Your task to perform on an android device: Open the calendar app Image 0: 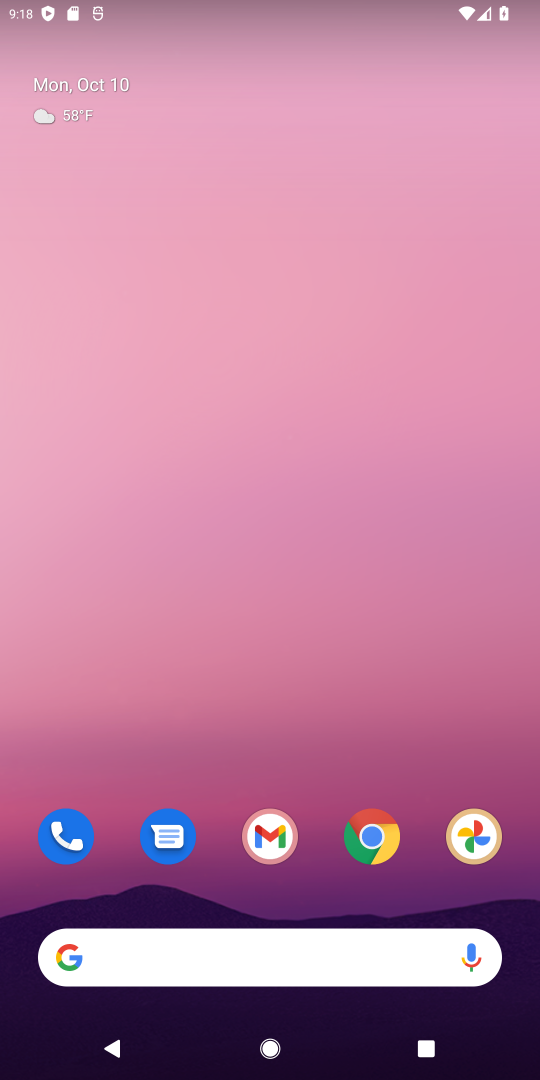
Step 0: drag from (329, 926) to (391, 290)
Your task to perform on an android device: Open the calendar app Image 1: 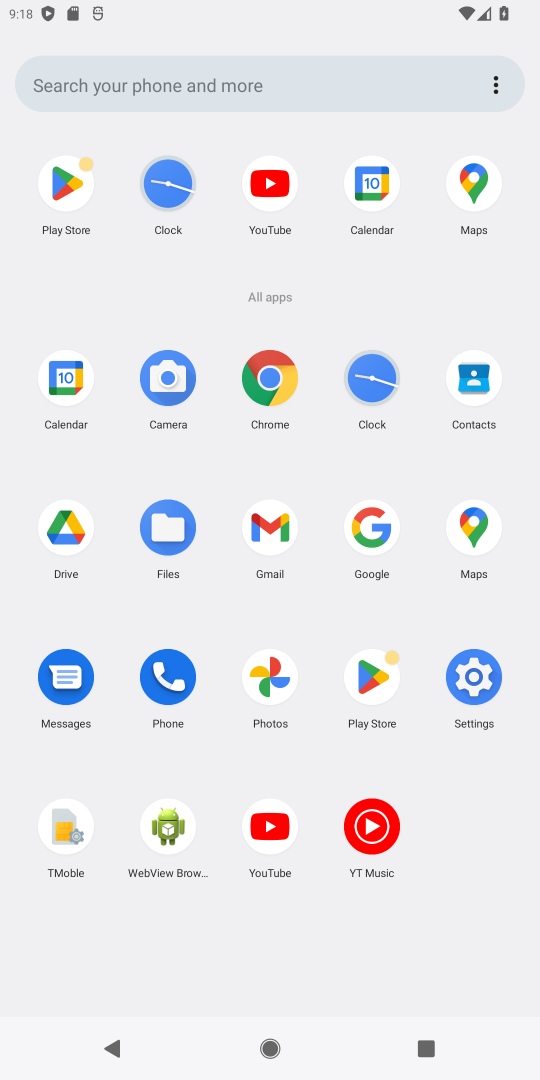
Step 1: click (369, 534)
Your task to perform on an android device: Open the calendar app Image 2: 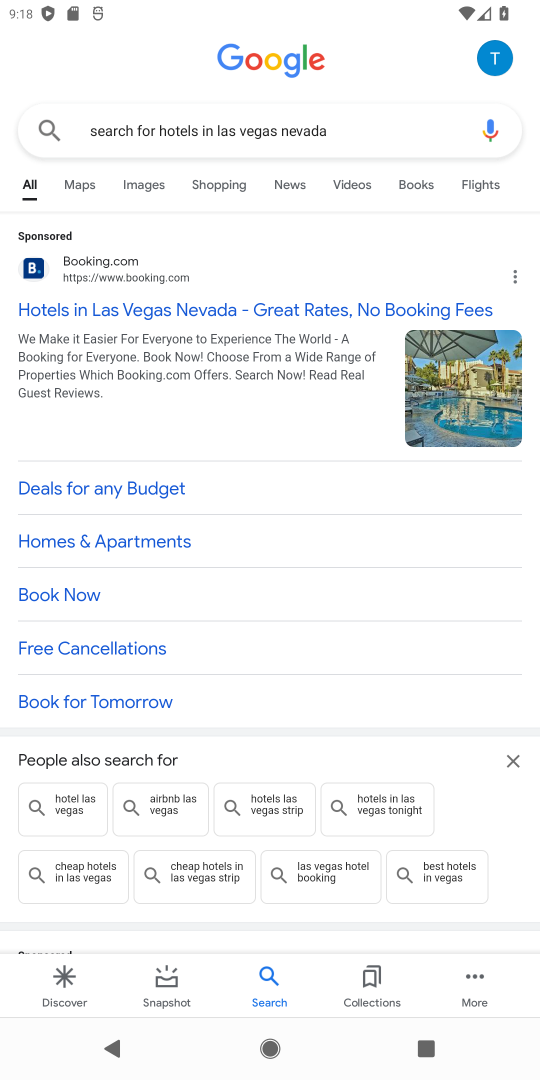
Step 2: click (310, 137)
Your task to perform on an android device: Open the calendar app Image 3: 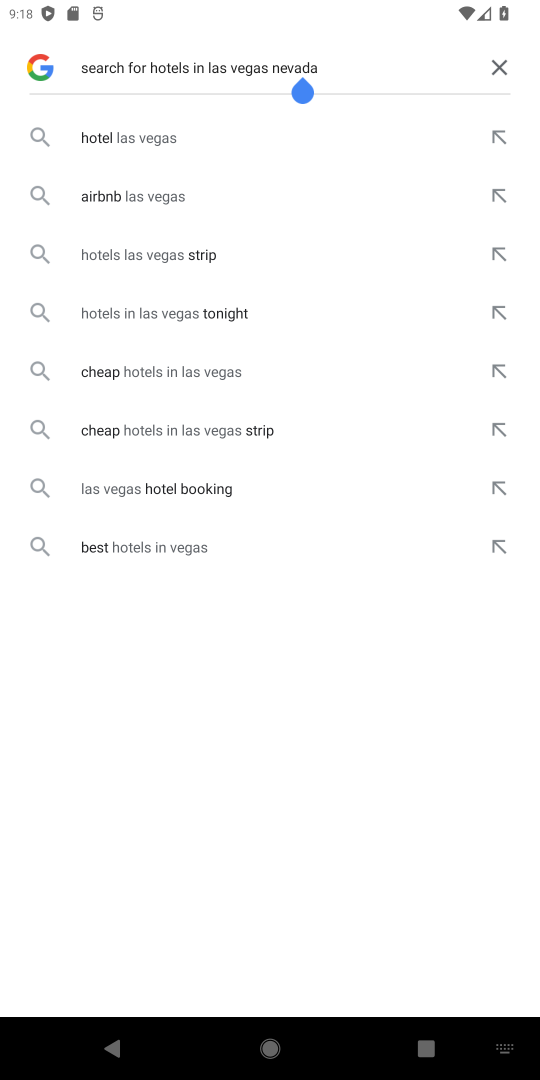
Step 3: click (489, 71)
Your task to perform on an android device: Open the calendar app Image 4: 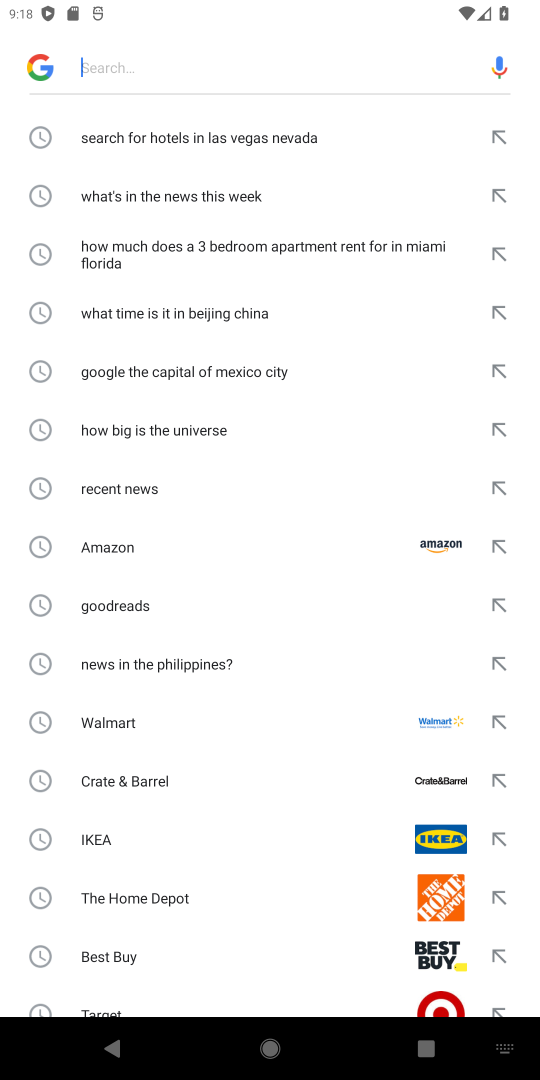
Step 4: click (145, 74)
Your task to perform on an android device: Open the calendar app Image 5: 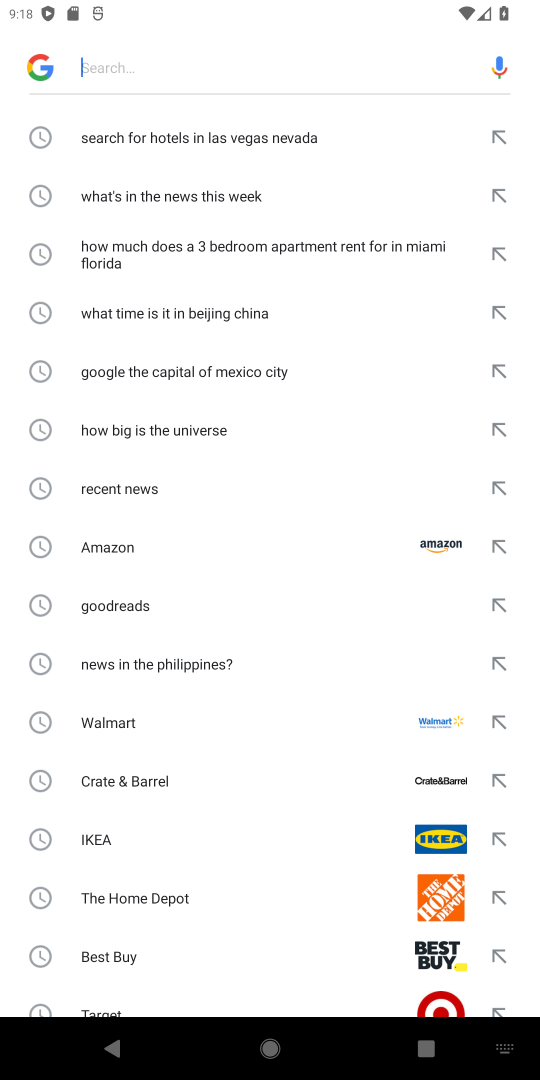
Step 5: press home button
Your task to perform on an android device: Open the calendar app Image 6: 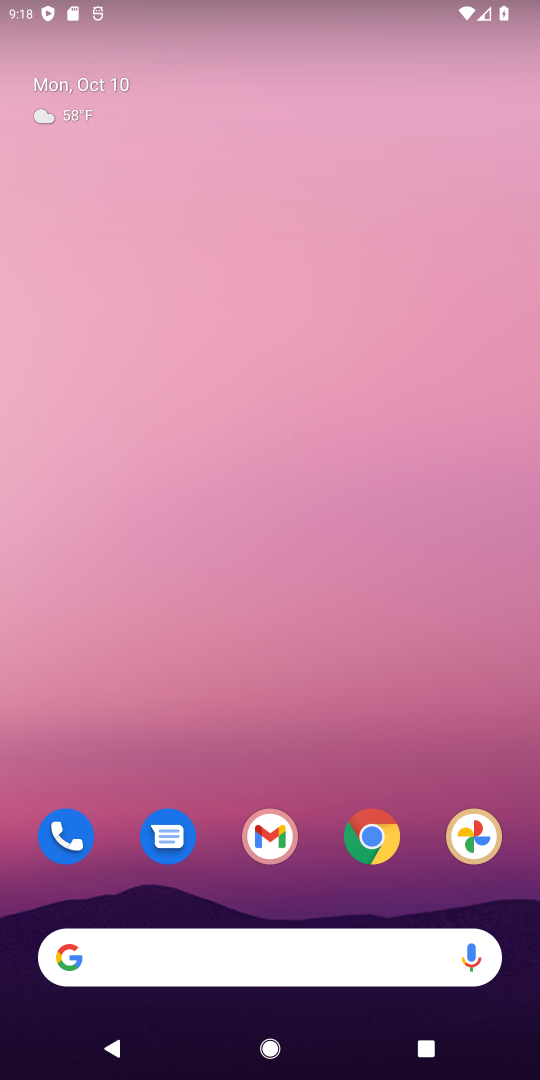
Step 6: drag from (393, 423) to (451, 40)
Your task to perform on an android device: Open the calendar app Image 7: 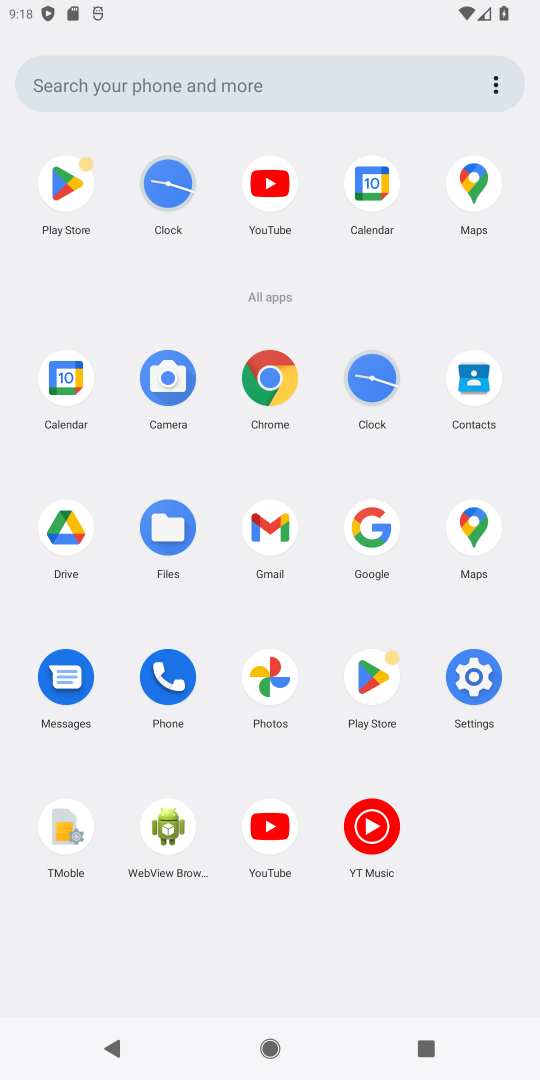
Step 7: click (384, 183)
Your task to perform on an android device: Open the calendar app Image 8: 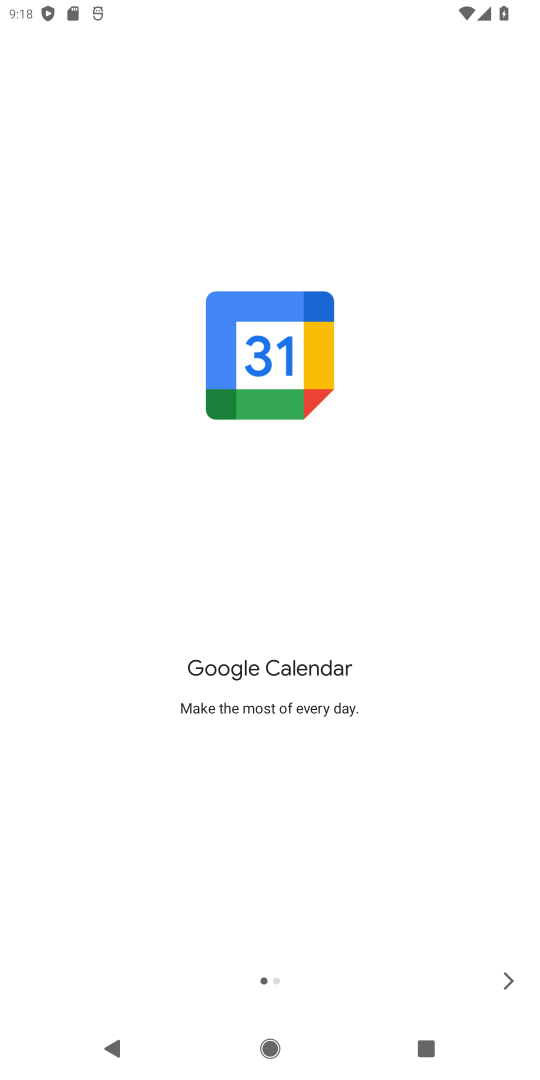
Step 8: click (499, 975)
Your task to perform on an android device: Open the calendar app Image 9: 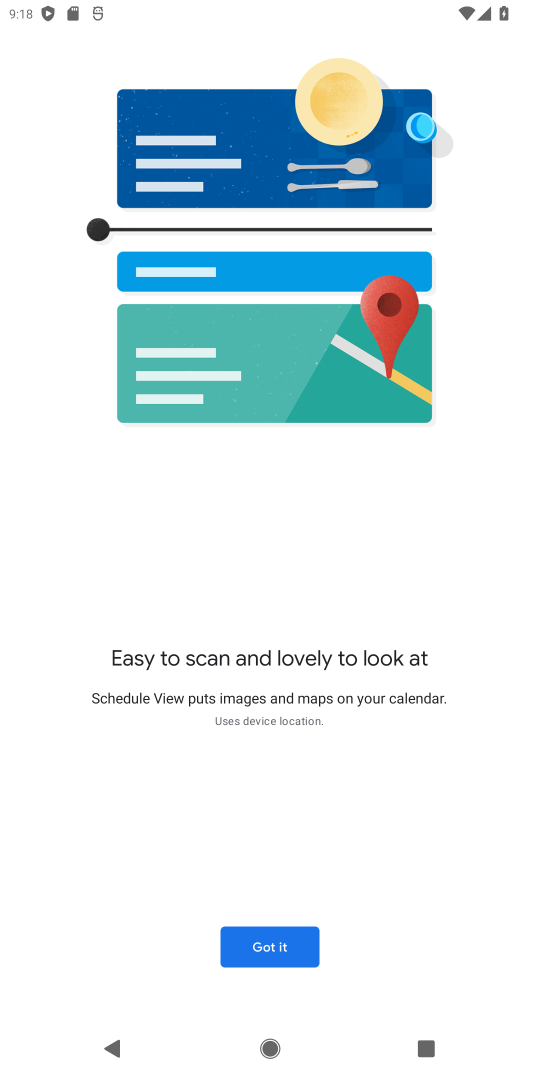
Step 9: click (262, 923)
Your task to perform on an android device: Open the calendar app Image 10: 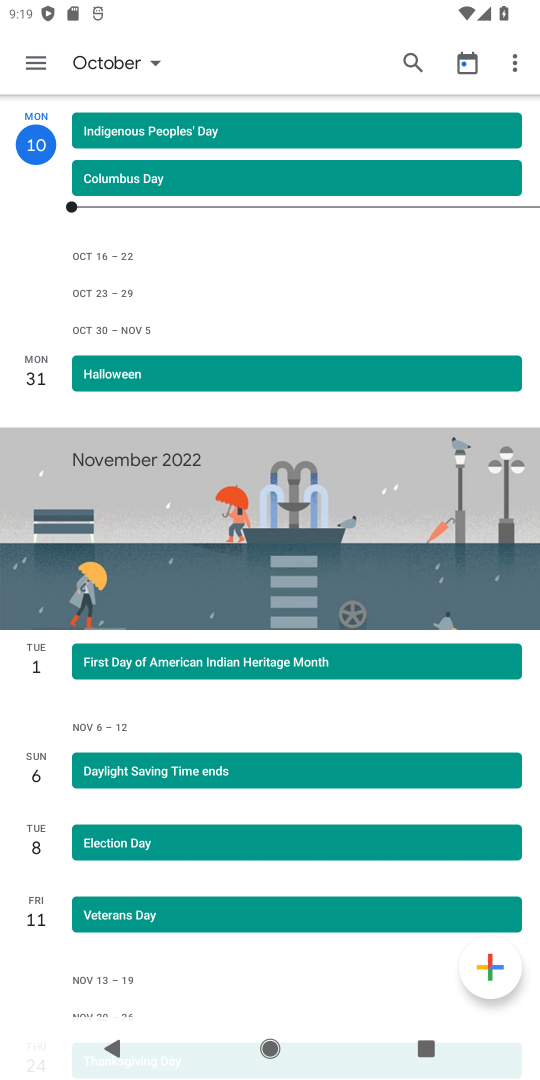
Step 10: task complete